Your task to perform on an android device: What is the recent news? Image 0: 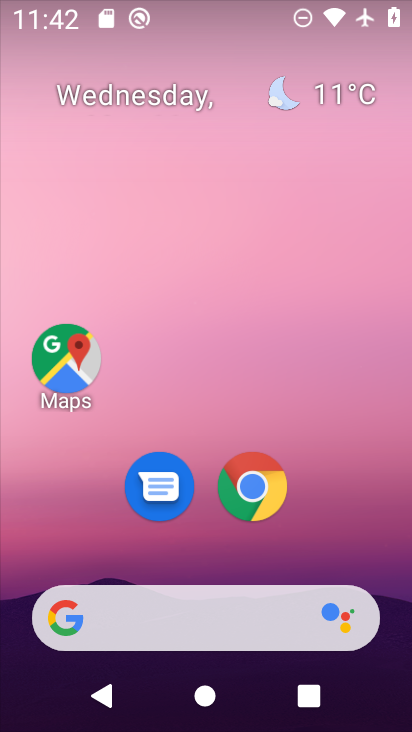
Step 0: drag from (367, 532) to (258, 65)
Your task to perform on an android device: What is the recent news? Image 1: 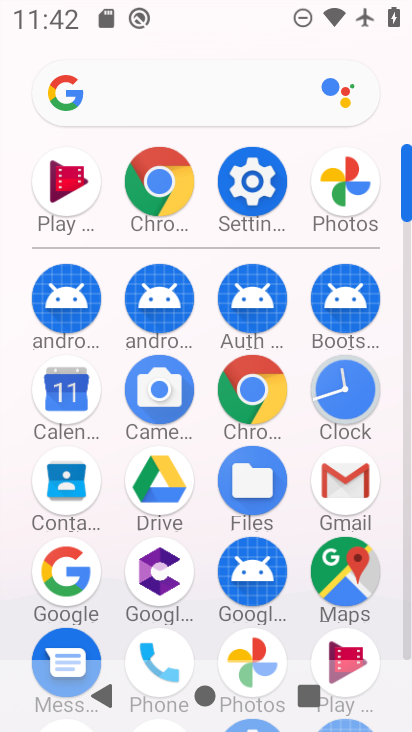
Step 1: drag from (7, 536) to (17, 227)
Your task to perform on an android device: What is the recent news? Image 2: 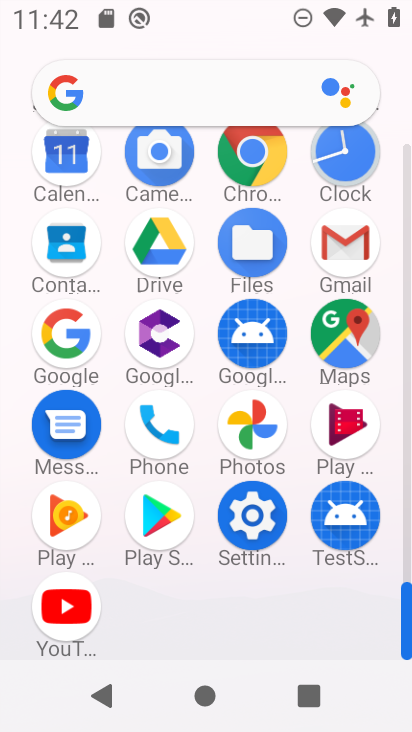
Step 2: click (250, 144)
Your task to perform on an android device: What is the recent news? Image 3: 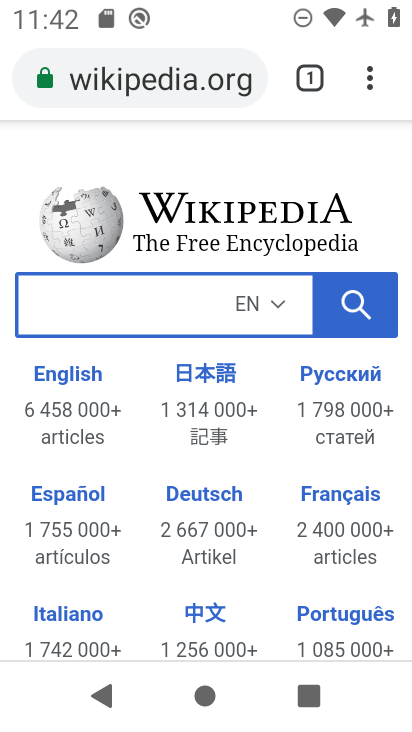
Step 3: click (148, 67)
Your task to perform on an android device: What is the recent news? Image 4: 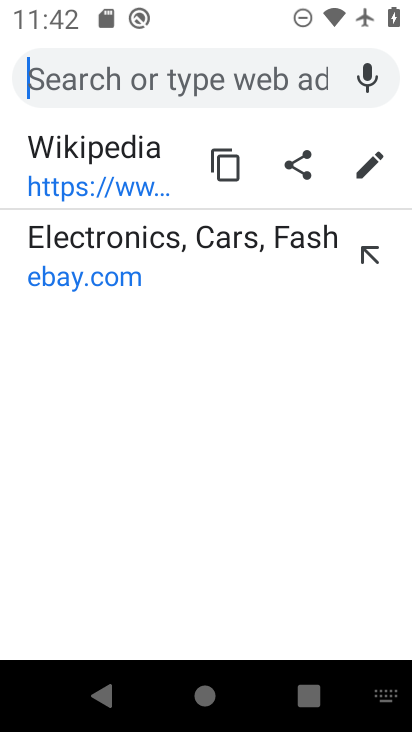
Step 4: type "What is the recent news?"
Your task to perform on an android device: What is the recent news? Image 5: 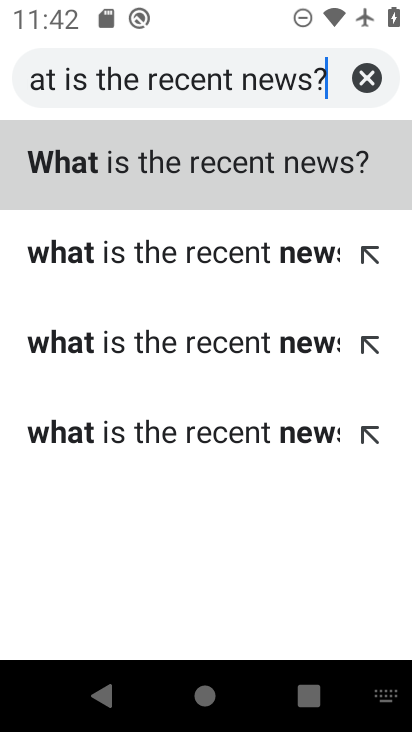
Step 5: type ""
Your task to perform on an android device: What is the recent news? Image 6: 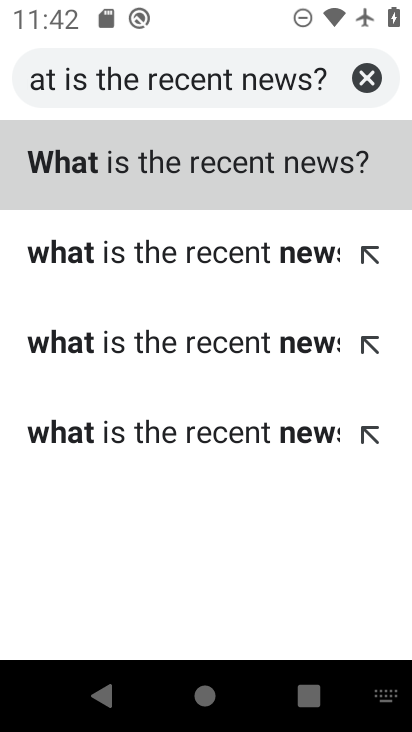
Step 6: click (222, 176)
Your task to perform on an android device: What is the recent news? Image 7: 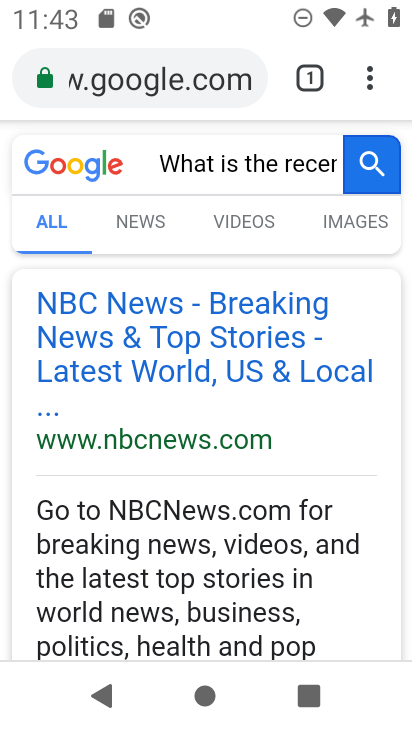
Step 7: click (129, 209)
Your task to perform on an android device: What is the recent news? Image 8: 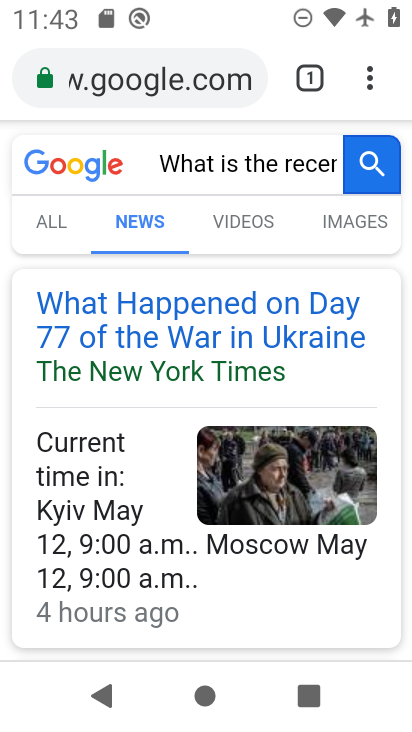
Step 8: task complete